Your task to perform on an android device: clear history in the chrome app Image 0: 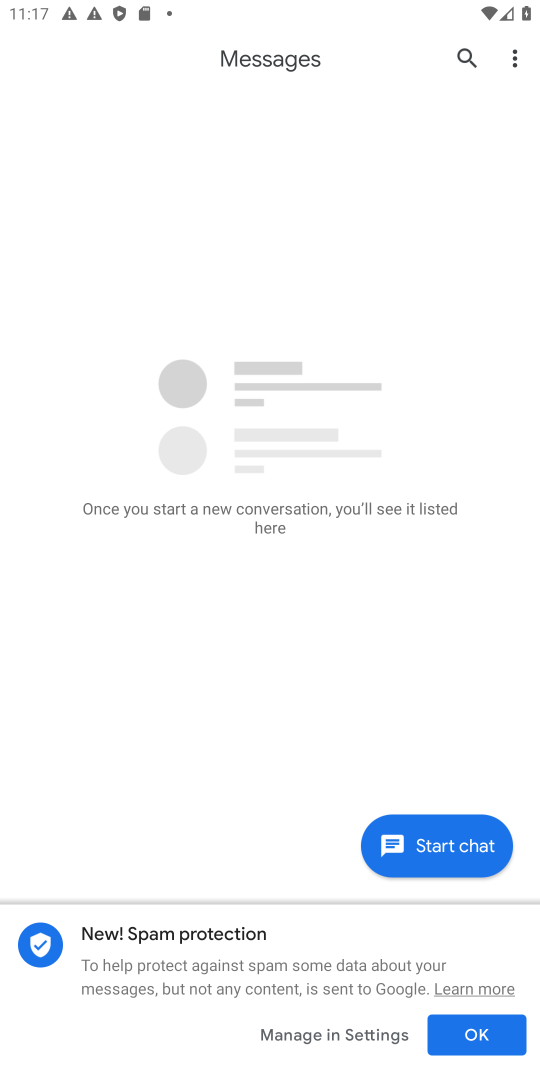
Step 0: press home button
Your task to perform on an android device: clear history in the chrome app Image 1: 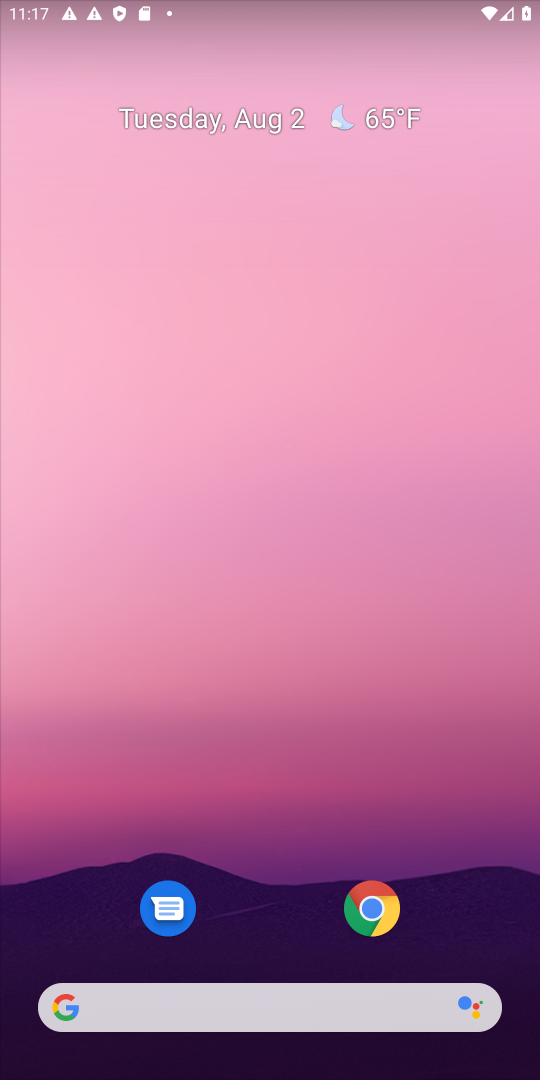
Step 1: click (364, 899)
Your task to perform on an android device: clear history in the chrome app Image 2: 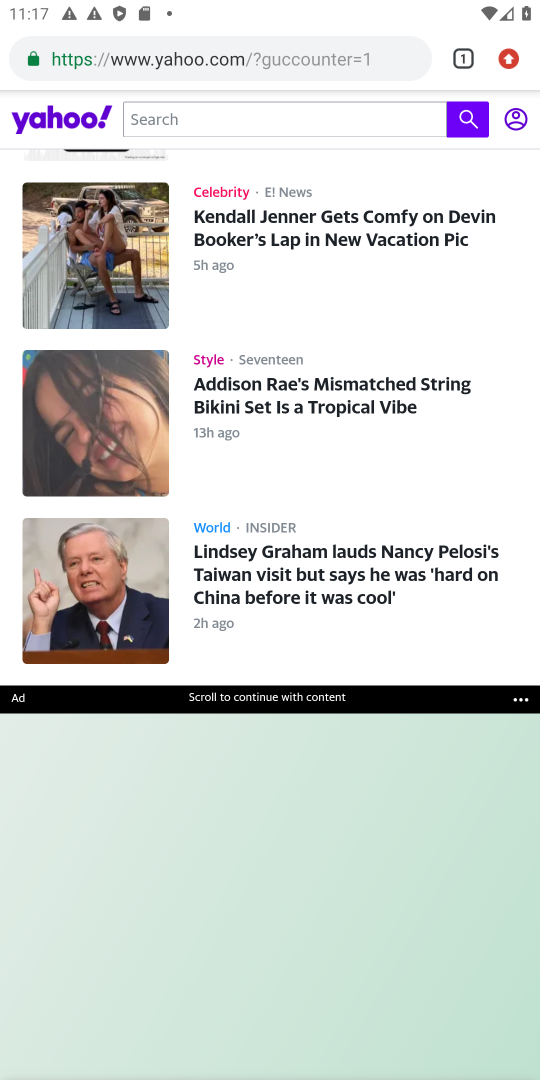
Step 2: click (504, 57)
Your task to perform on an android device: clear history in the chrome app Image 3: 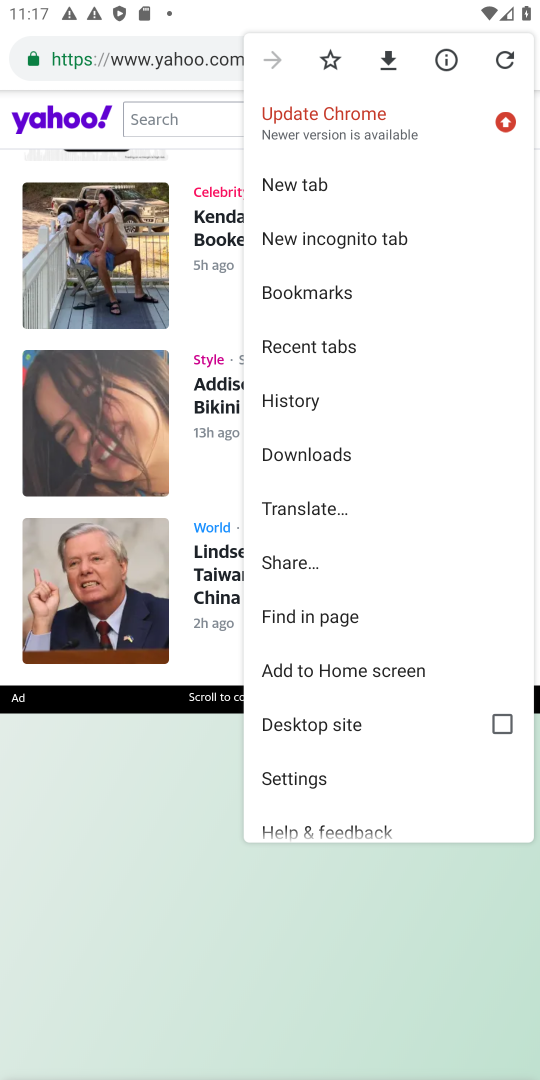
Step 3: click (325, 398)
Your task to perform on an android device: clear history in the chrome app Image 4: 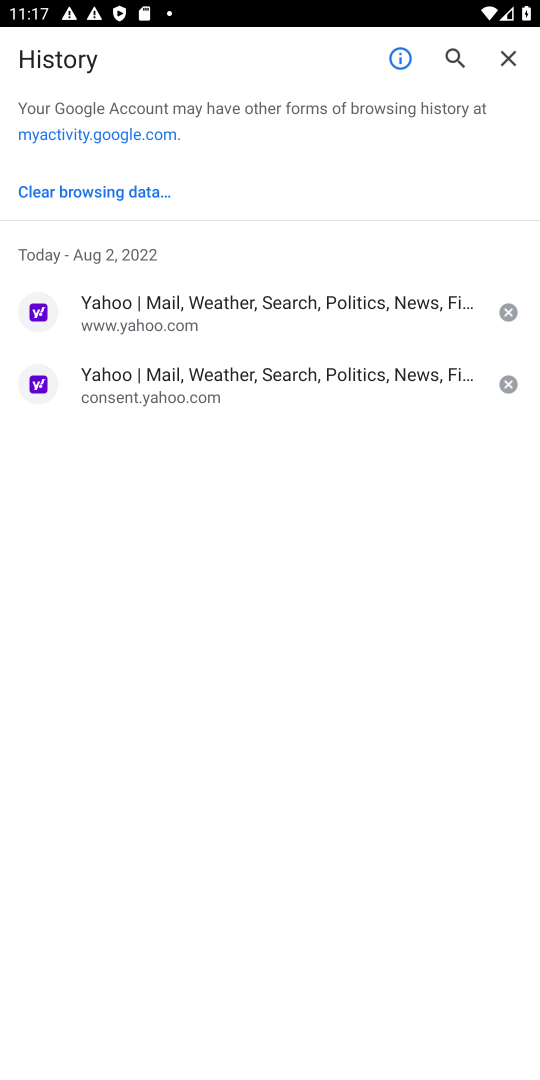
Step 4: click (124, 186)
Your task to perform on an android device: clear history in the chrome app Image 5: 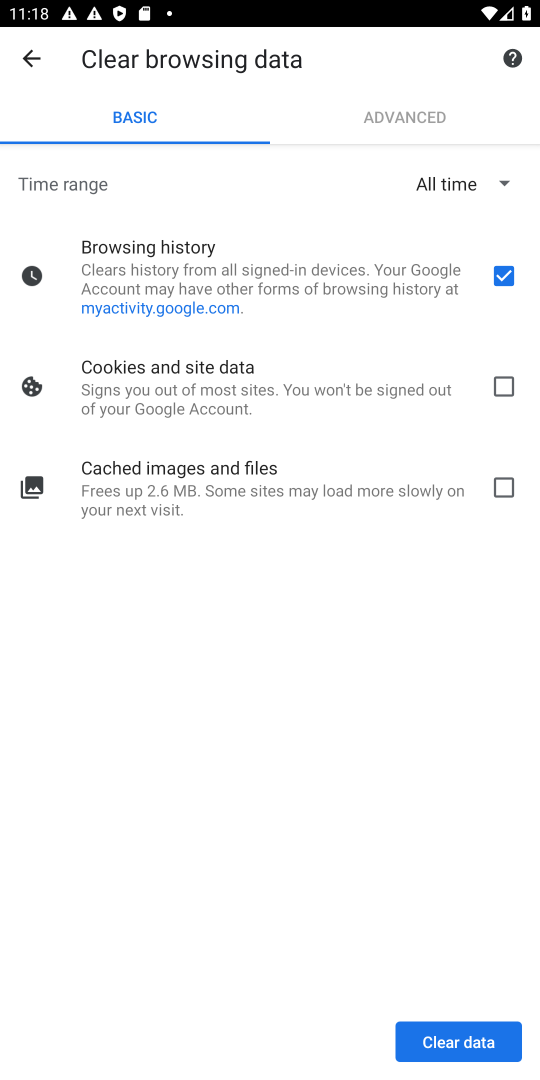
Step 5: click (468, 1045)
Your task to perform on an android device: clear history in the chrome app Image 6: 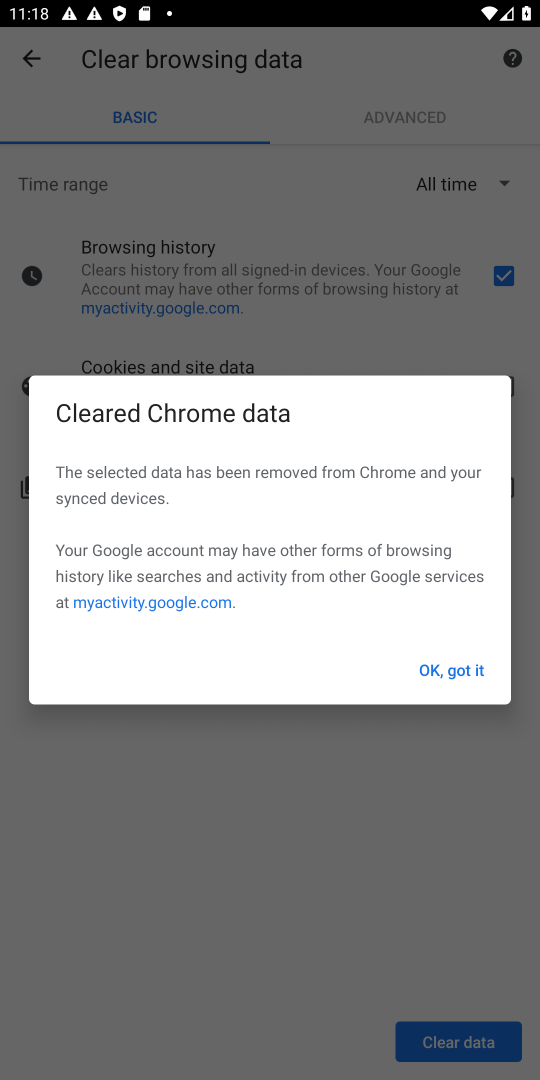
Step 6: click (416, 664)
Your task to perform on an android device: clear history in the chrome app Image 7: 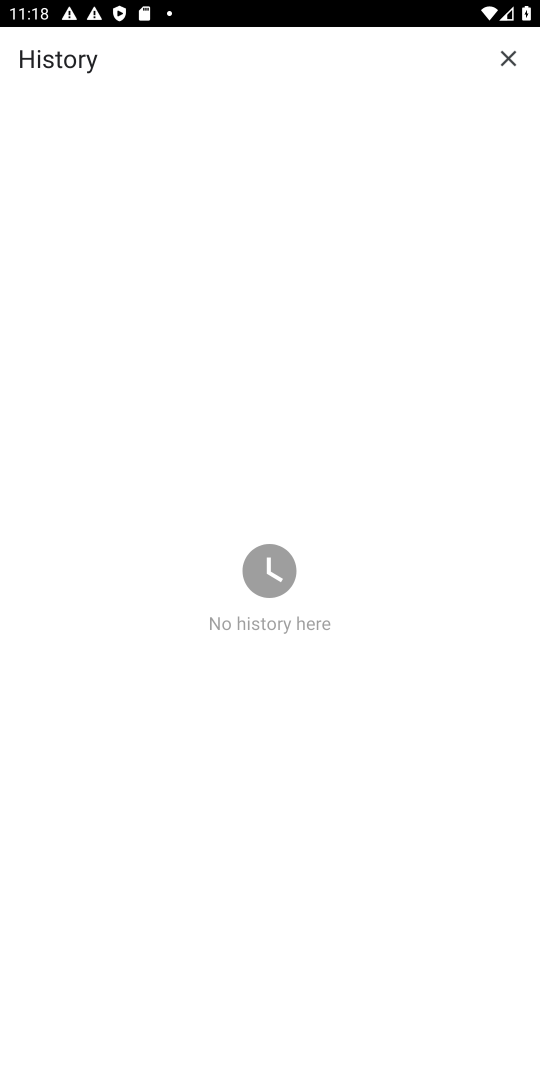
Step 7: task complete